Your task to perform on an android device: find which apps use the phone's location Image 0: 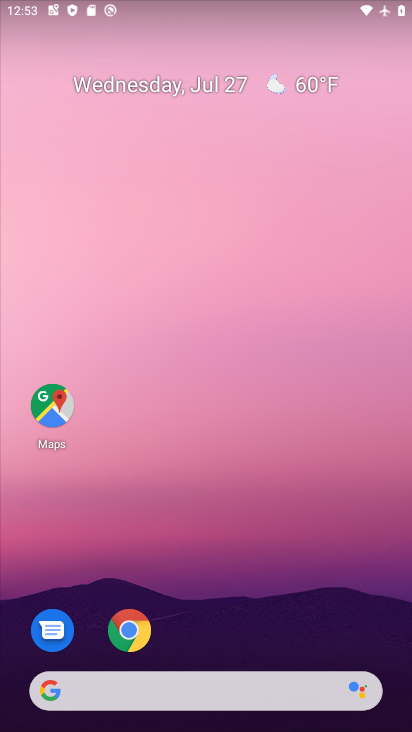
Step 0: press home button
Your task to perform on an android device: find which apps use the phone's location Image 1: 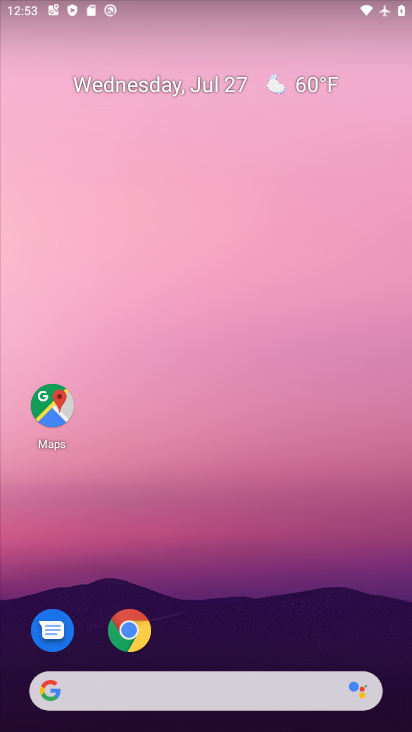
Step 1: drag from (216, 650) to (279, 1)
Your task to perform on an android device: find which apps use the phone's location Image 2: 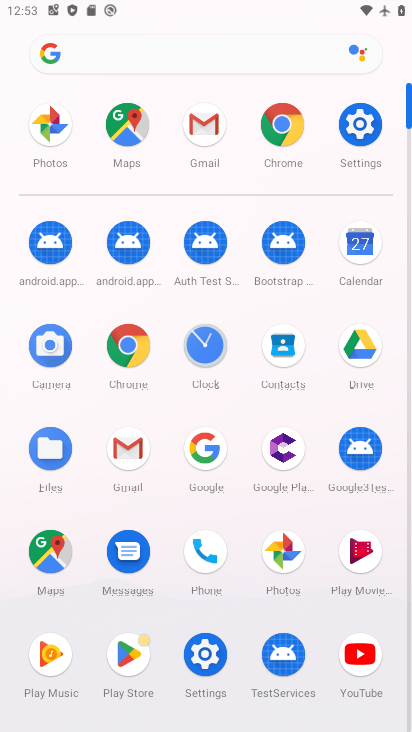
Step 2: click (365, 112)
Your task to perform on an android device: find which apps use the phone's location Image 3: 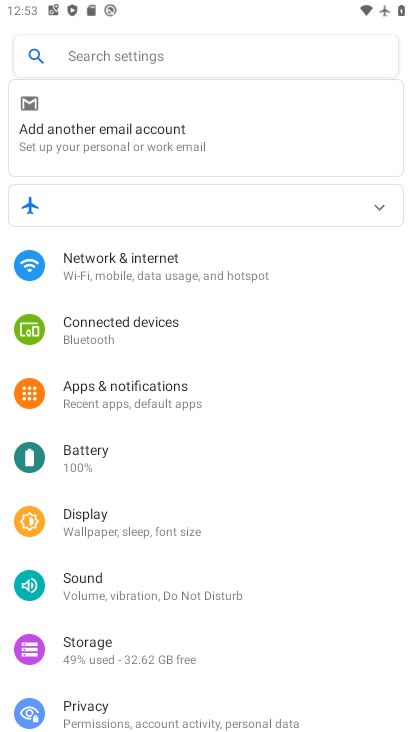
Step 3: drag from (266, 630) to (313, 131)
Your task to perform on an android device: find which apps use the phone's location Image 4: 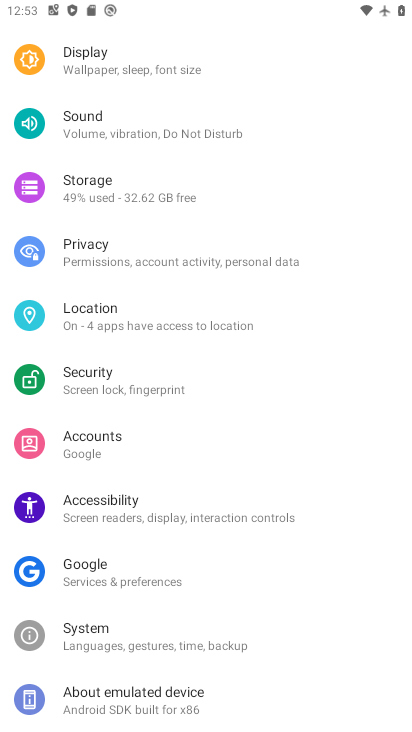
Step 4: click (92, 313)
Your task to perform on an android device: find which apps use the phone's location Image 5: 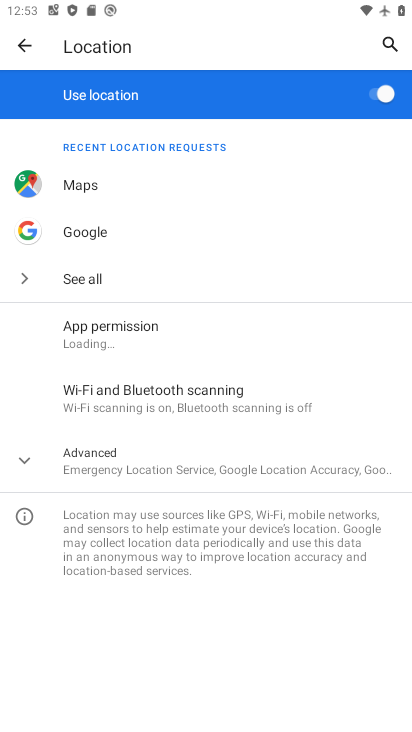
Step 5: click (92, 337)
Your task to perform on an android device: find which apps use the phone's location Image 6: 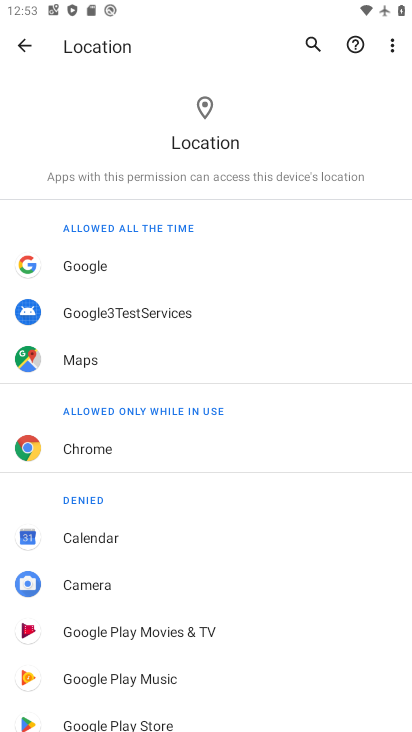
Step 6: task complete